Your task to perform on an android device: Open Google Maps and go to "Timeline" Image 0: 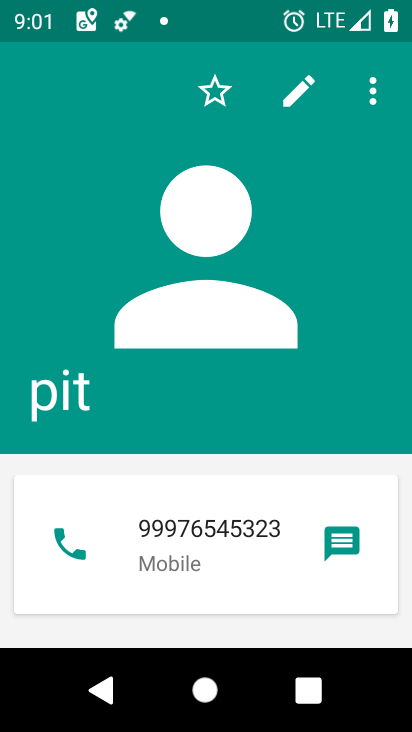
Step 0: press home button
Your task to perform on an android device: Open Google Maps and go to "Timeline" Image 1: 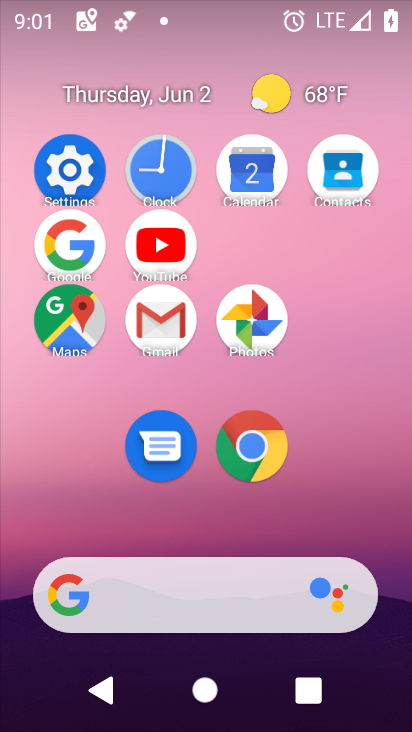
Step 1: click (72, 327)
Your task to perform on an android device: Open Google Maps and go to "Timeline" Image 2: 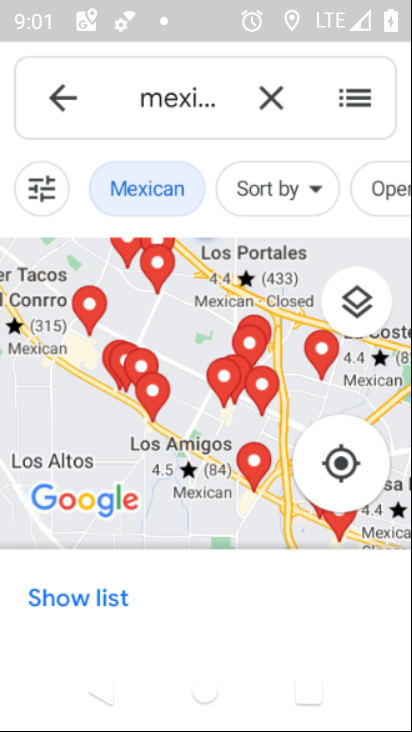
Step 2: click (60, 109)
Your task to perform on an android device: Open Google Maps and go to "Timeline" Image 3: 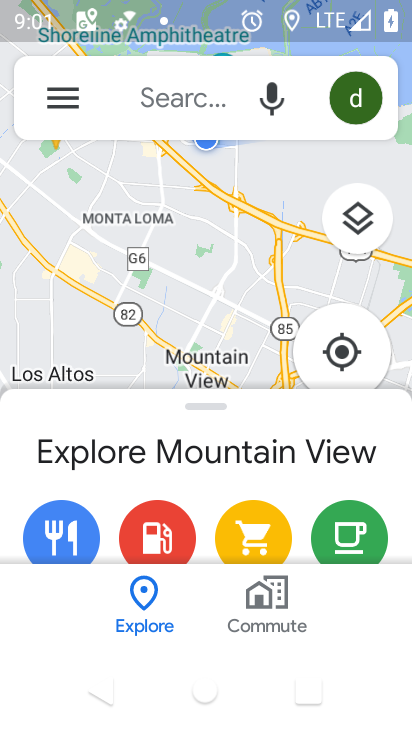
Step 3: click (60, 109)
Your task to perform on an android device: Open Google Maps and go to "Timeline" Image 4: 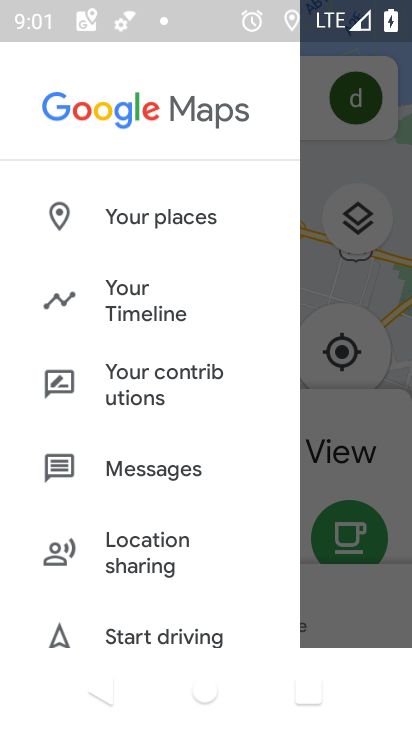
Step 4: click (126, 302)
Your task to perform on an android device: Open Google Maps and go to "Timeline" Image 5: 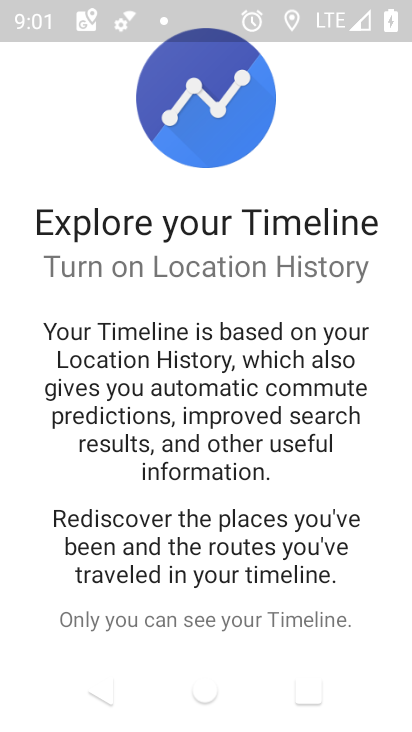
Step 5: drag from (293, 570) to (340, 194)
Your task to perform on an android device: Open Google Maps and go to "Timeline" Image 6: 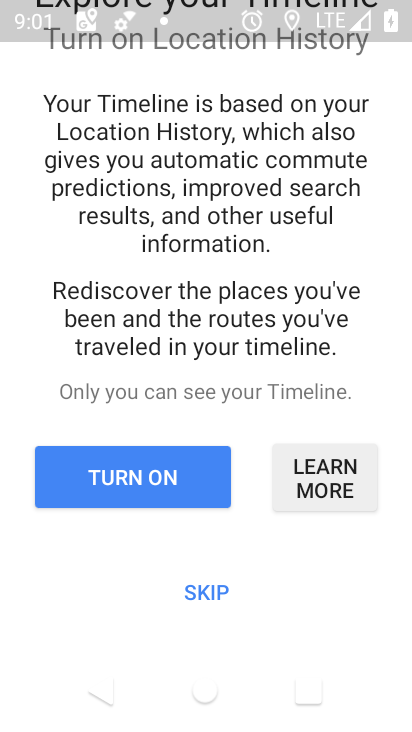
Step 6: click (164, 471)
Your task to perform on an android device: Open Google Maps and go to "Timeline" Image 7: 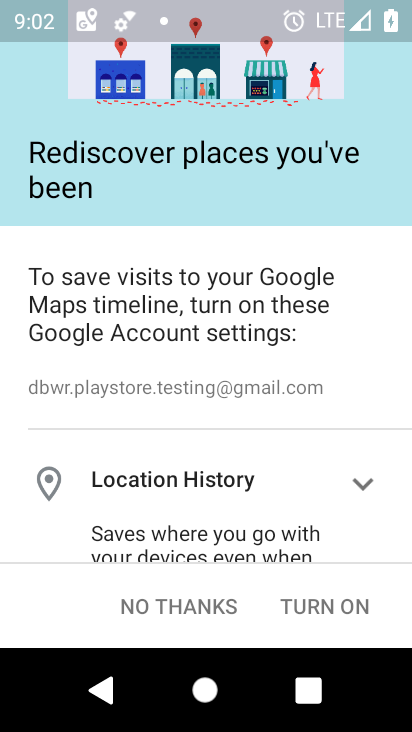
Step 7: click (337, 617)
Your task to perform on an android device: Open Google Maps and go to "Timeline" Image 8: 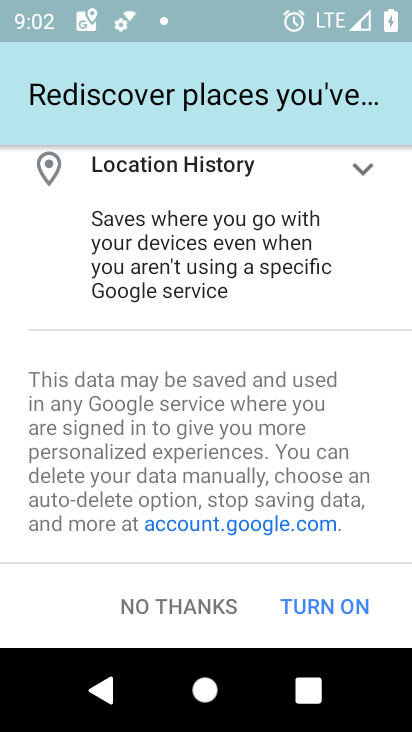
Step 8: click (326, 620)
Your task to perform on an android device: Open Google Maps and go to "Timeline" Image 9: 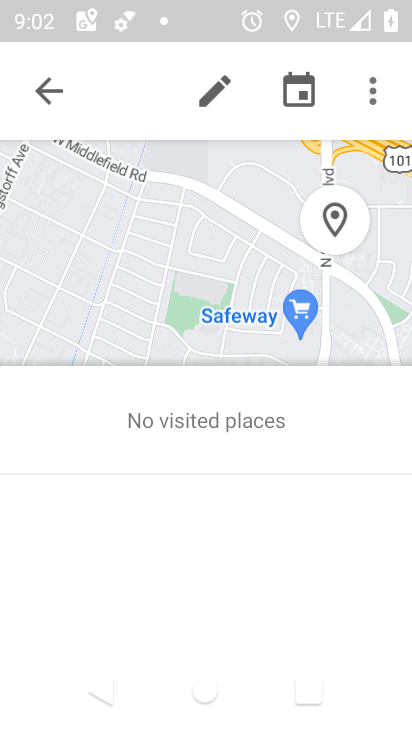
Step 9: task complete